Your task to perform on an android device: See recent photos Image 0: 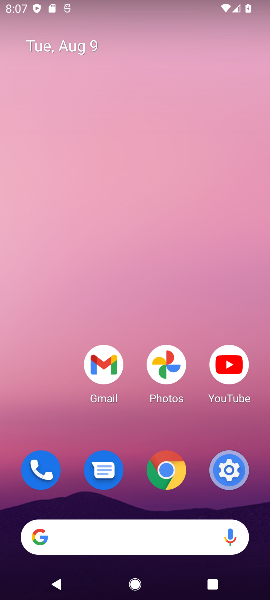
Step 0: drag from (120, 544) to (124, 198)
Your task to perform on an android device: See recent photos Image 1: 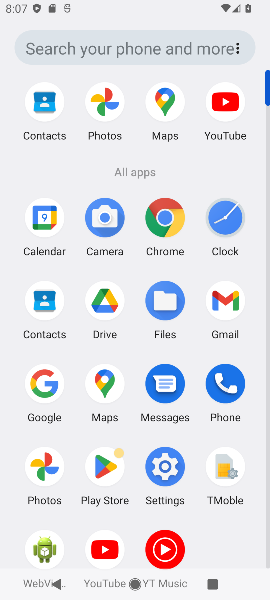
Step 1: click (104, 101)
Your task to perform on an android device: See recent photos Image 2: 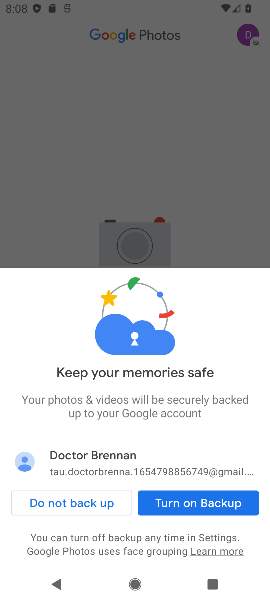
Step 2: click (118, 505)
Your task to perform on an android device: See recent photos Image 3: 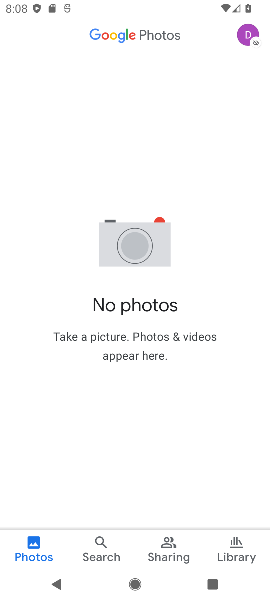
Step 3: click (100, 544)
Your task to perform on an android device: See recent photos Image 4: 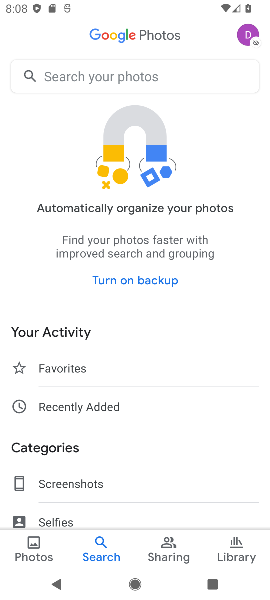
Step 4: click (65, 371)
Your task to perform on an android device: See recent photos Image 5: 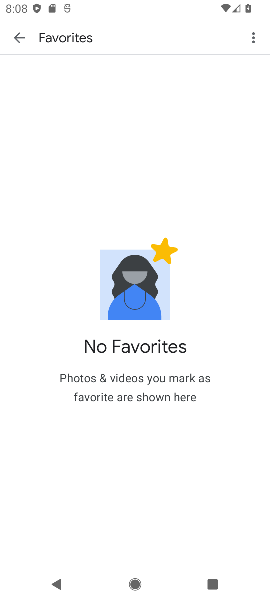
Step 5: task complete